Your task to perform on an android device: Go to network settings Image 0: 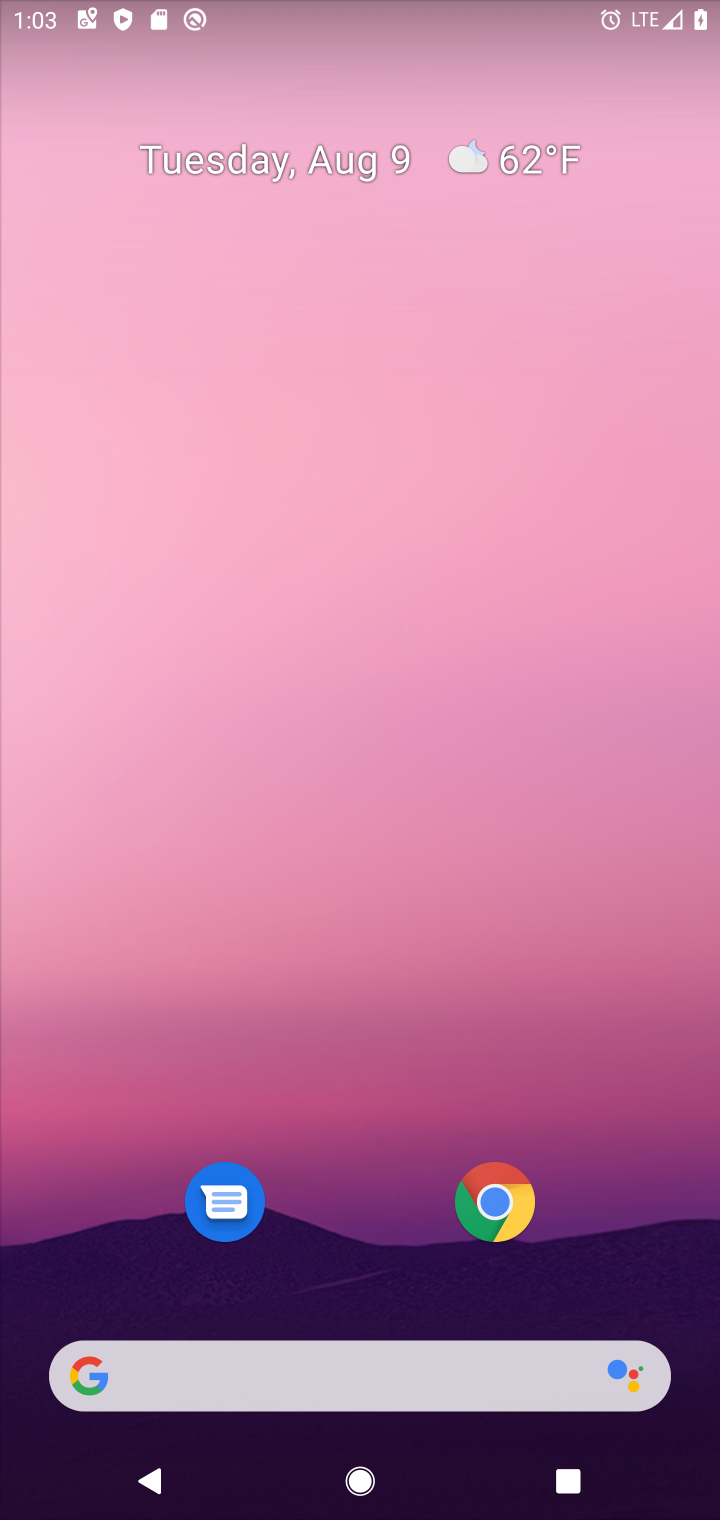
Step 0: drag from (322, 151) to (111, 4)
Your task to perform on an android device: Go to network settings Image 1: 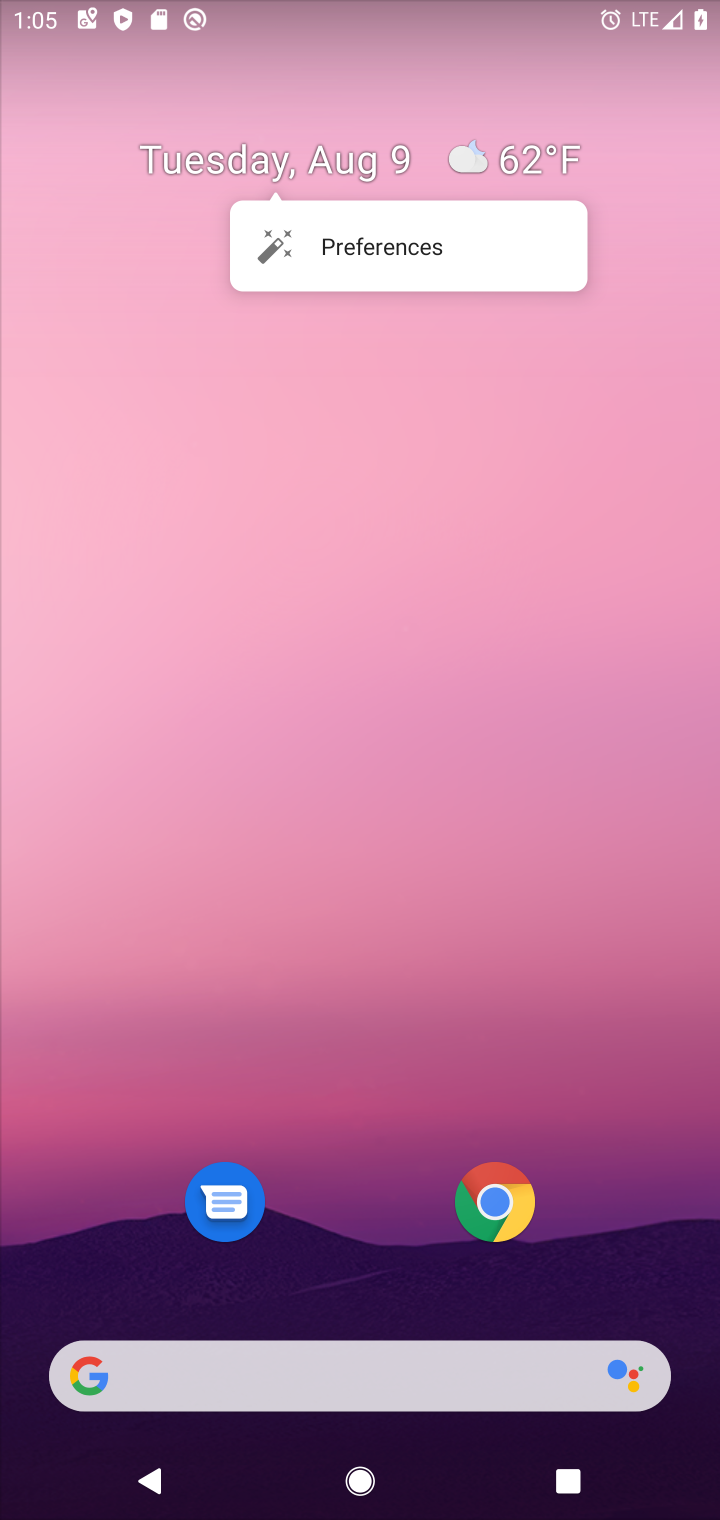
Step 1: drag from (374, 1237) to (387, 150)
Your task to perform on an android device: Go to network settings Image 2: 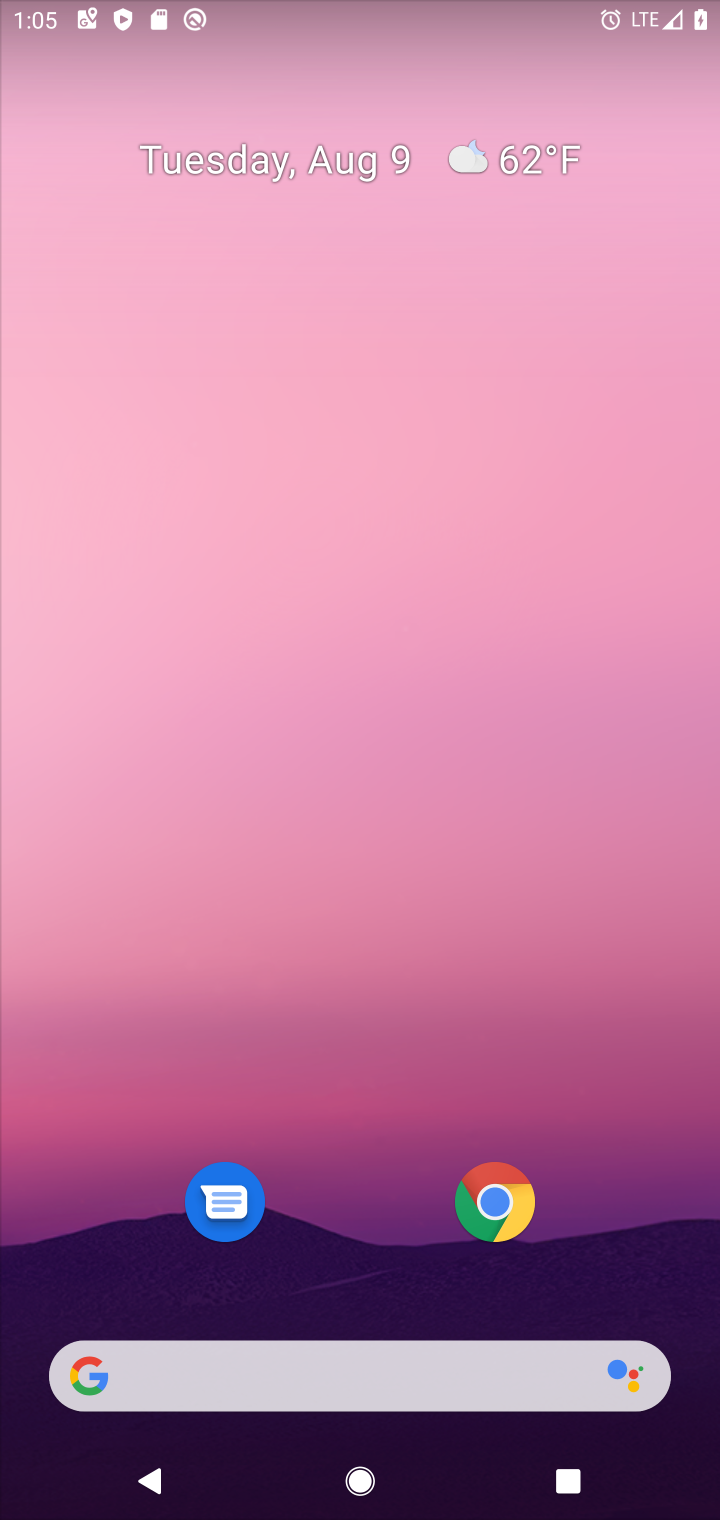
Step 2: drag from (296, 799) to (476, 1476)
Your task to perform on an android device: Go to network settings Image 3: 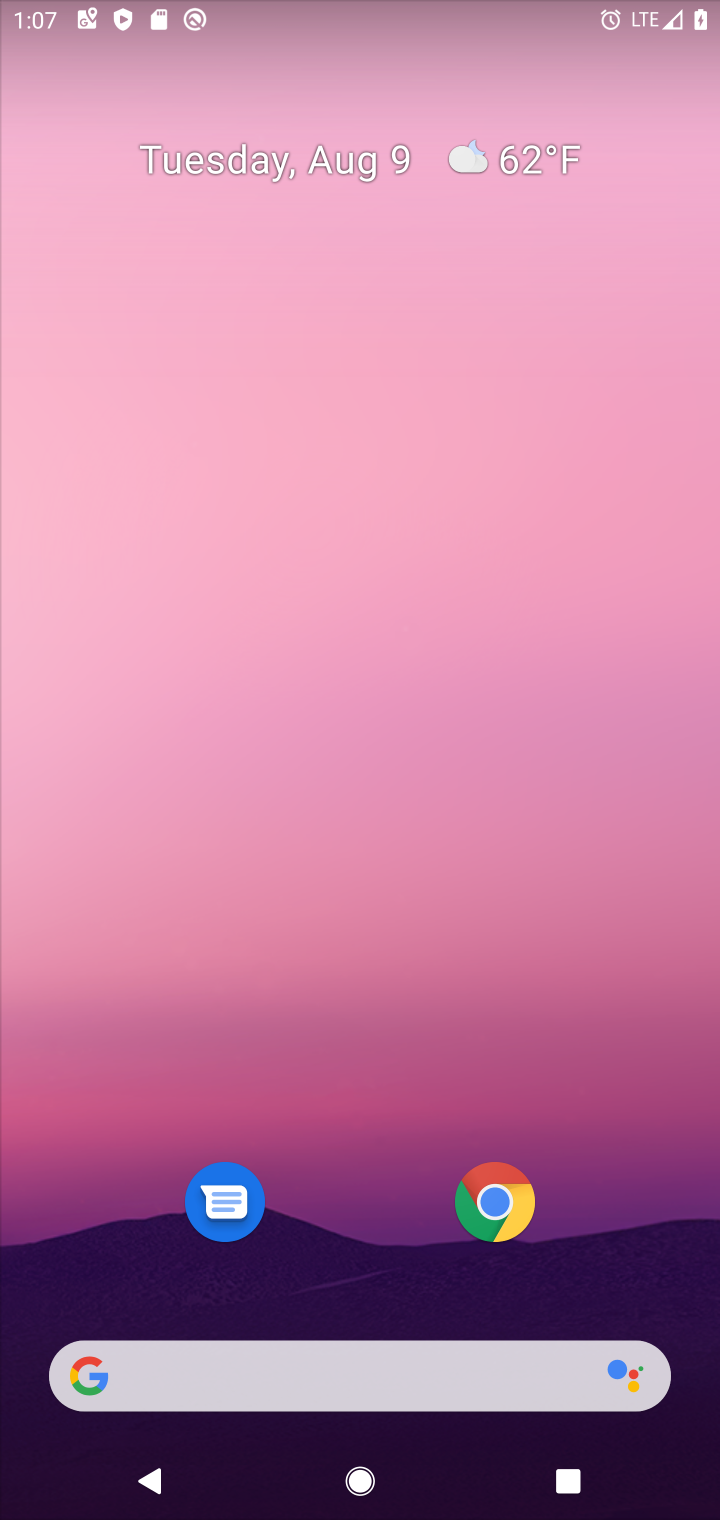
Step 3: drag from (351, 1169) to (452, 18)
Your task to perform on an android device: Go to network settings Image 4: 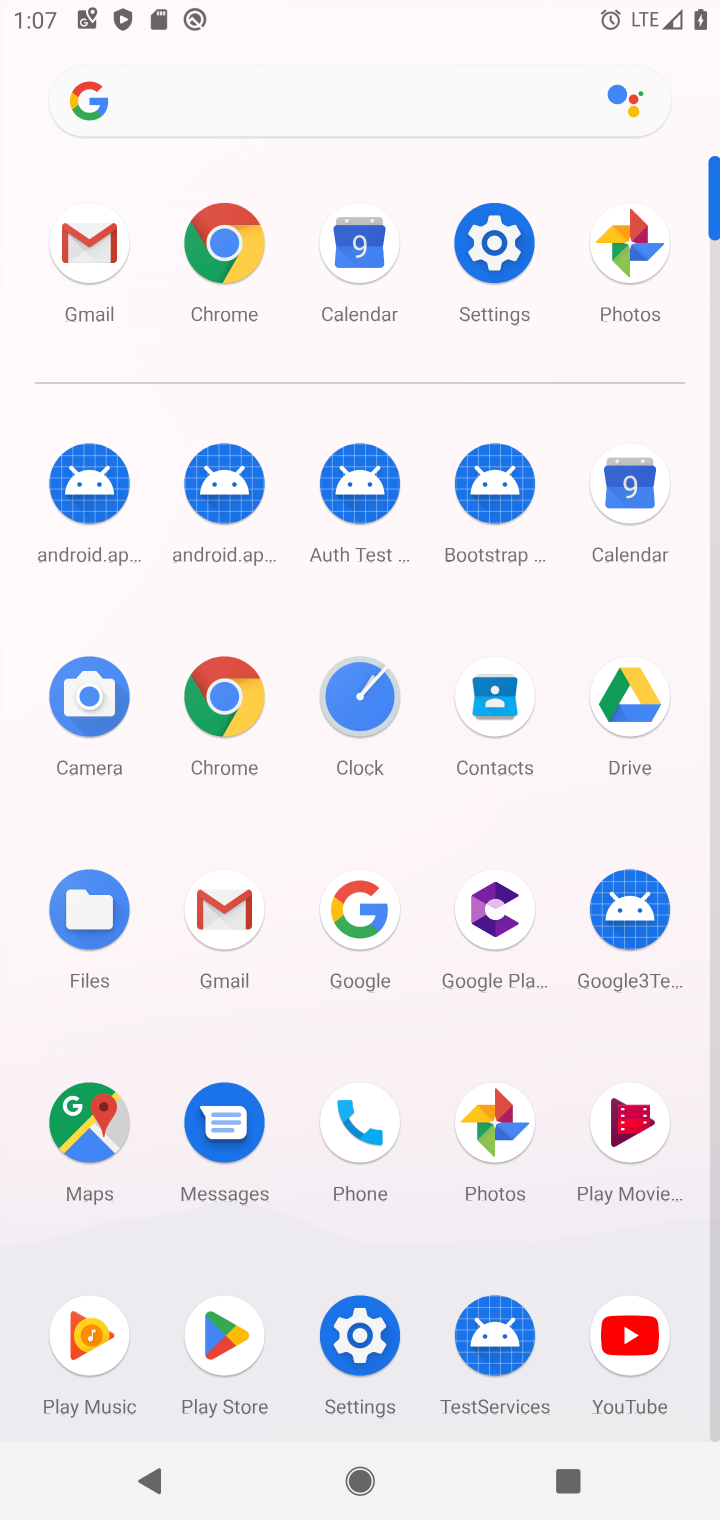
Step 4: click (497, 229)
Your task to perform on an android device: Go to network settings Image 5: 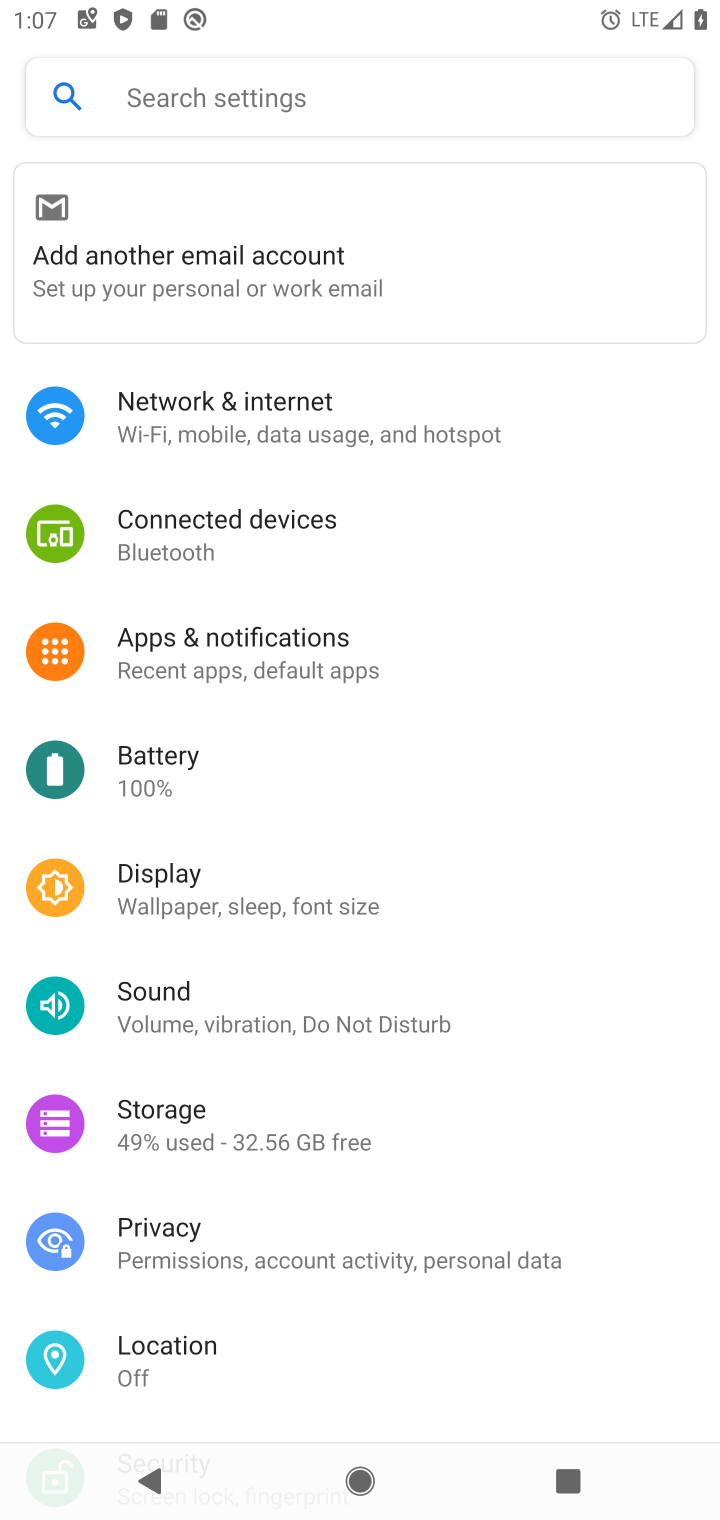
Step 5: click (179, 434)
Your task to perform on an android device: Go to network settings Image 6: 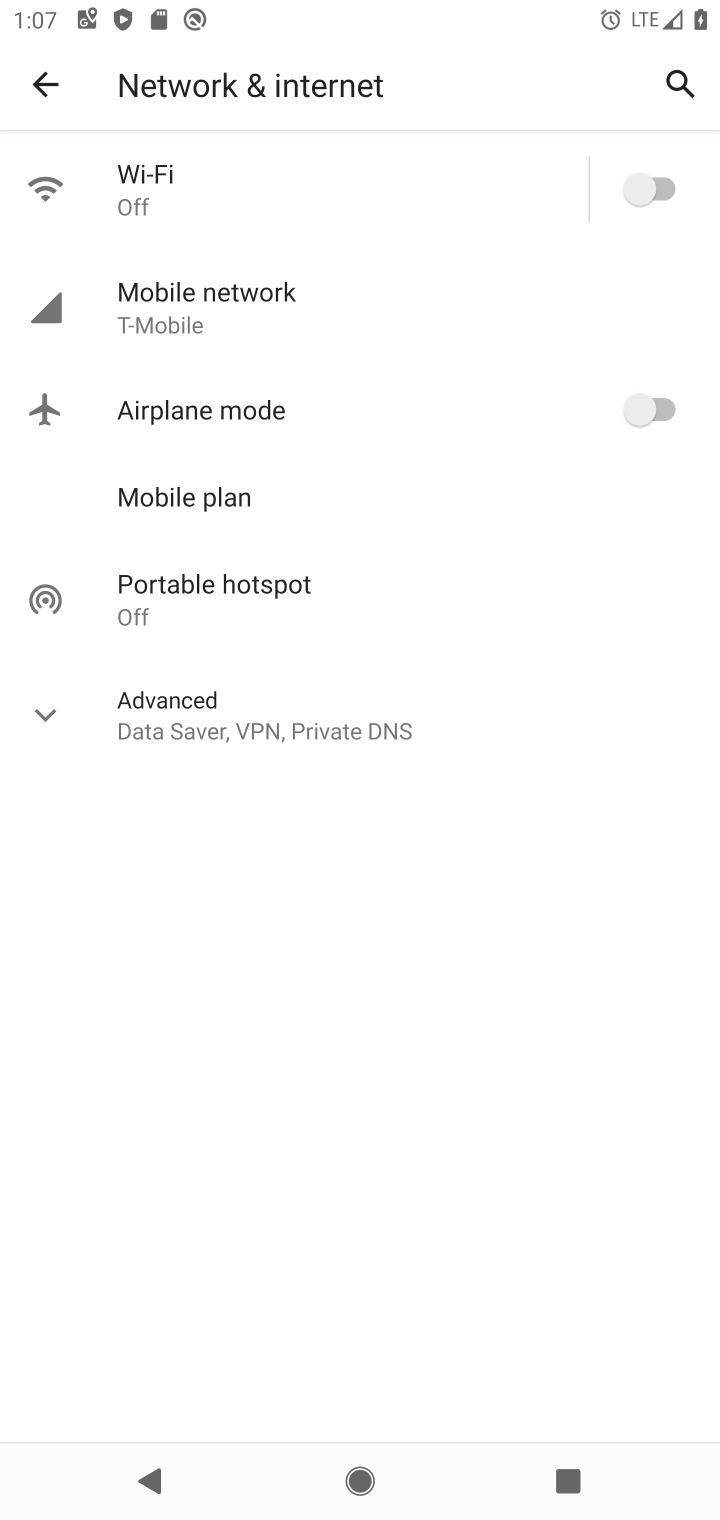
Step 6: task complete